Your task to perform on an android device: install app "YouTube Kids" Image 0: 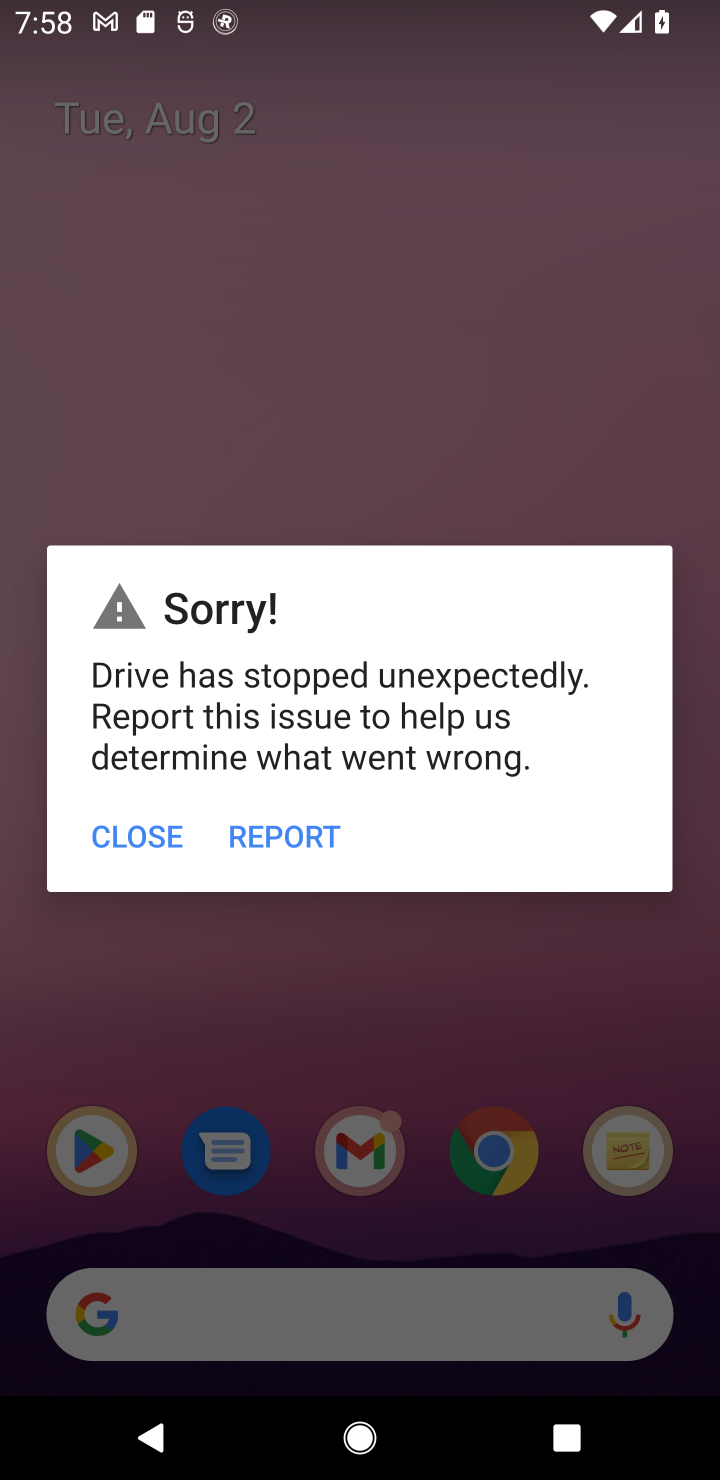
Step 0: click (152, 843)
Your task to perform on an android device: install app "YouTube Kids" Image 1: 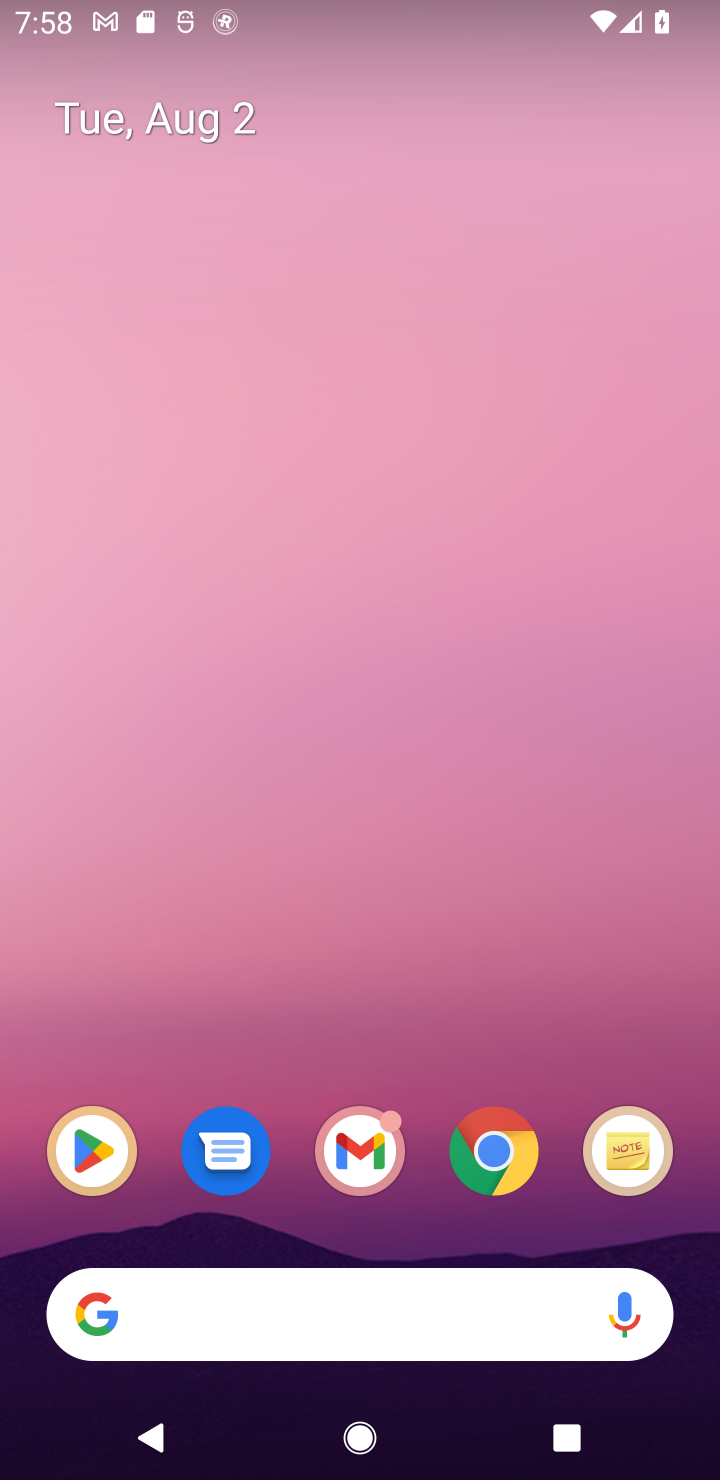
Step 1: click (84, 1146)
Your task to perform on an android device: install app "YouTube Kids" Image 2: 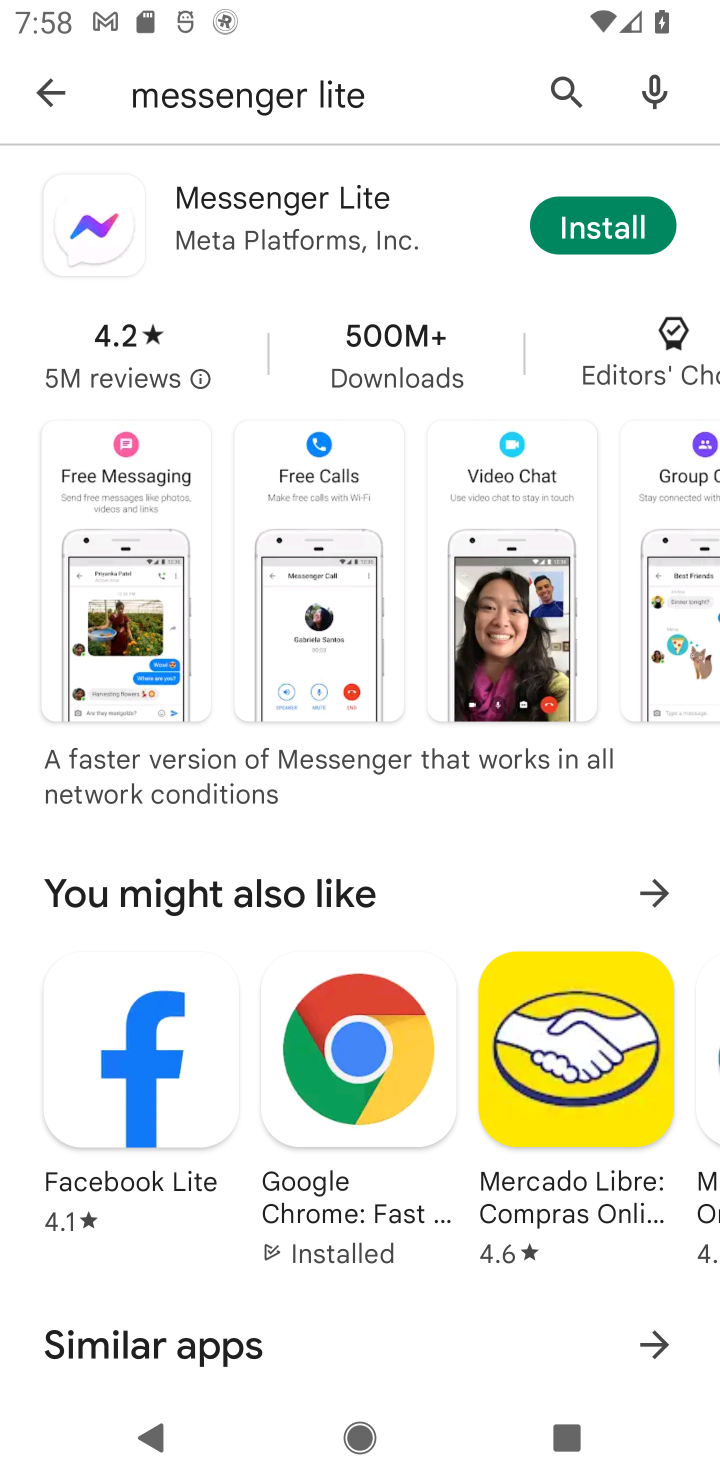
Step 2: click (566, 74)
Your task to perform on an android device: install app "YouTube Kids" Image 3: 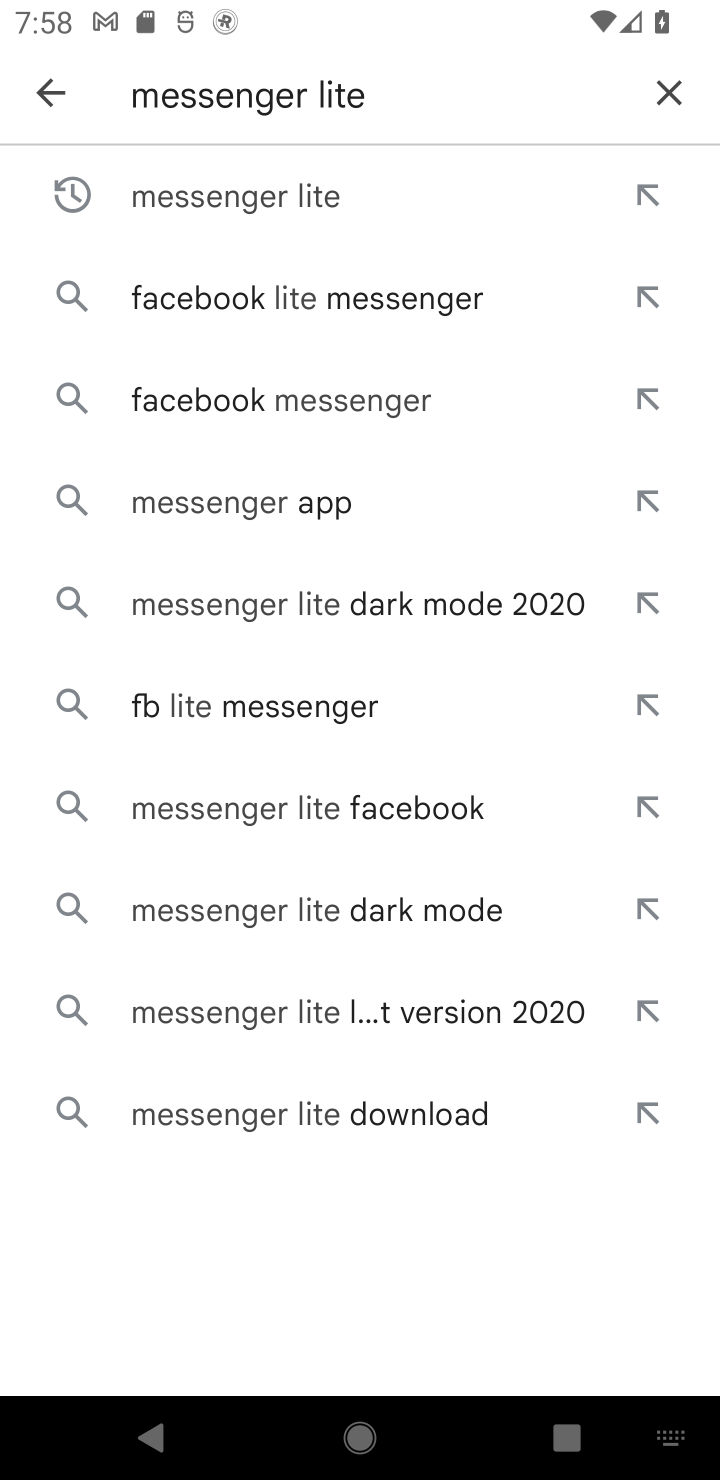
Step 3: click (654, 107)
Your task to perform on an android device: install app "YouTube Kids" Image 4: 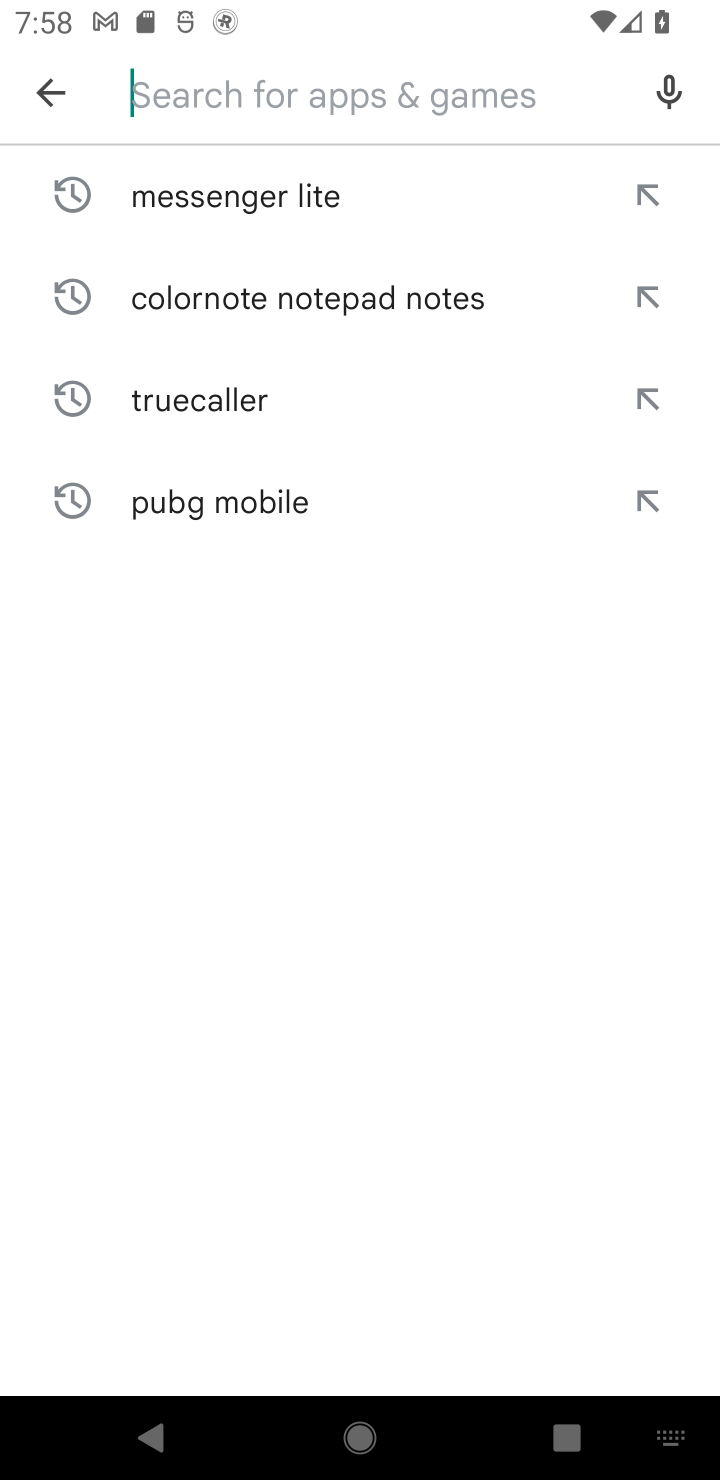
Step 4: type "YouTube Kids"
Your task to perform on an android device: install app "YouTube Kids" Image 5: 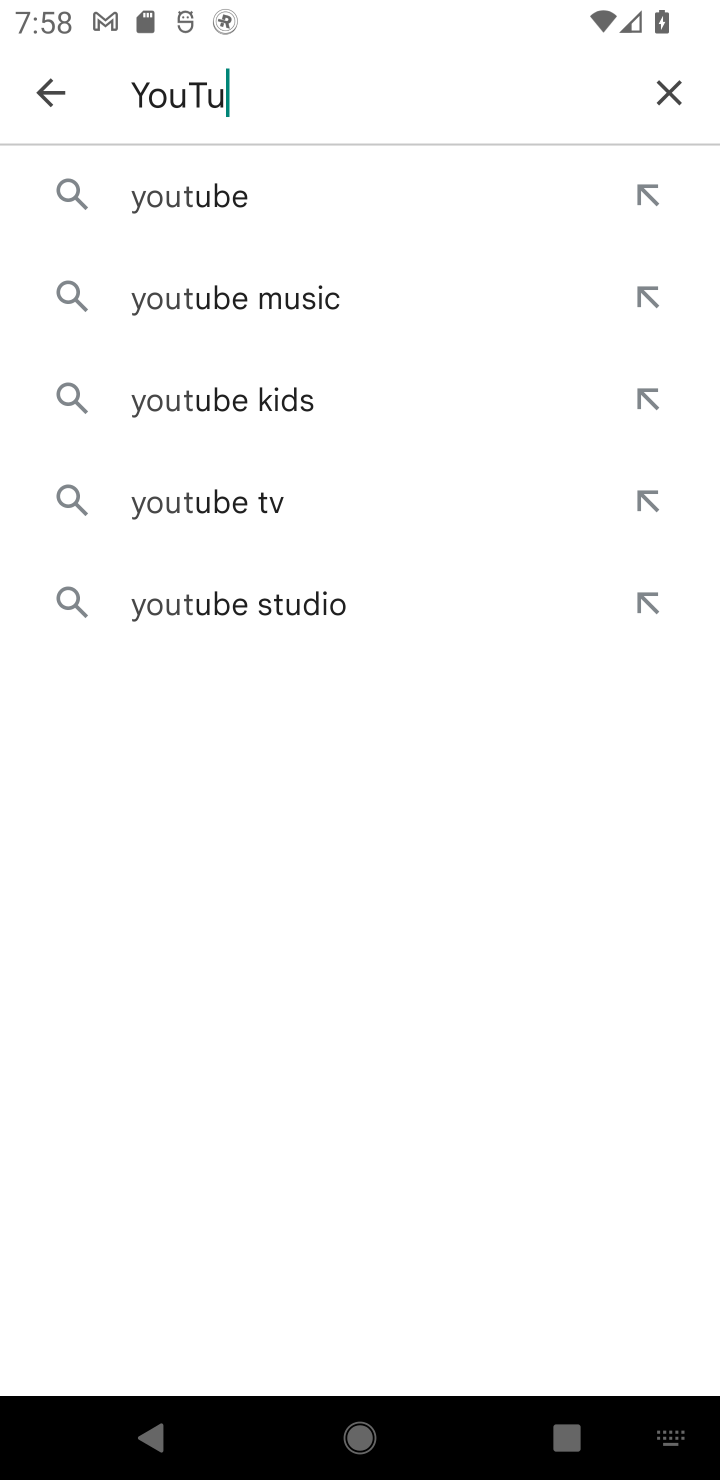
Step 5: type ""
Your task to perform on an android device: install app "YouTube Kids" Image 6: 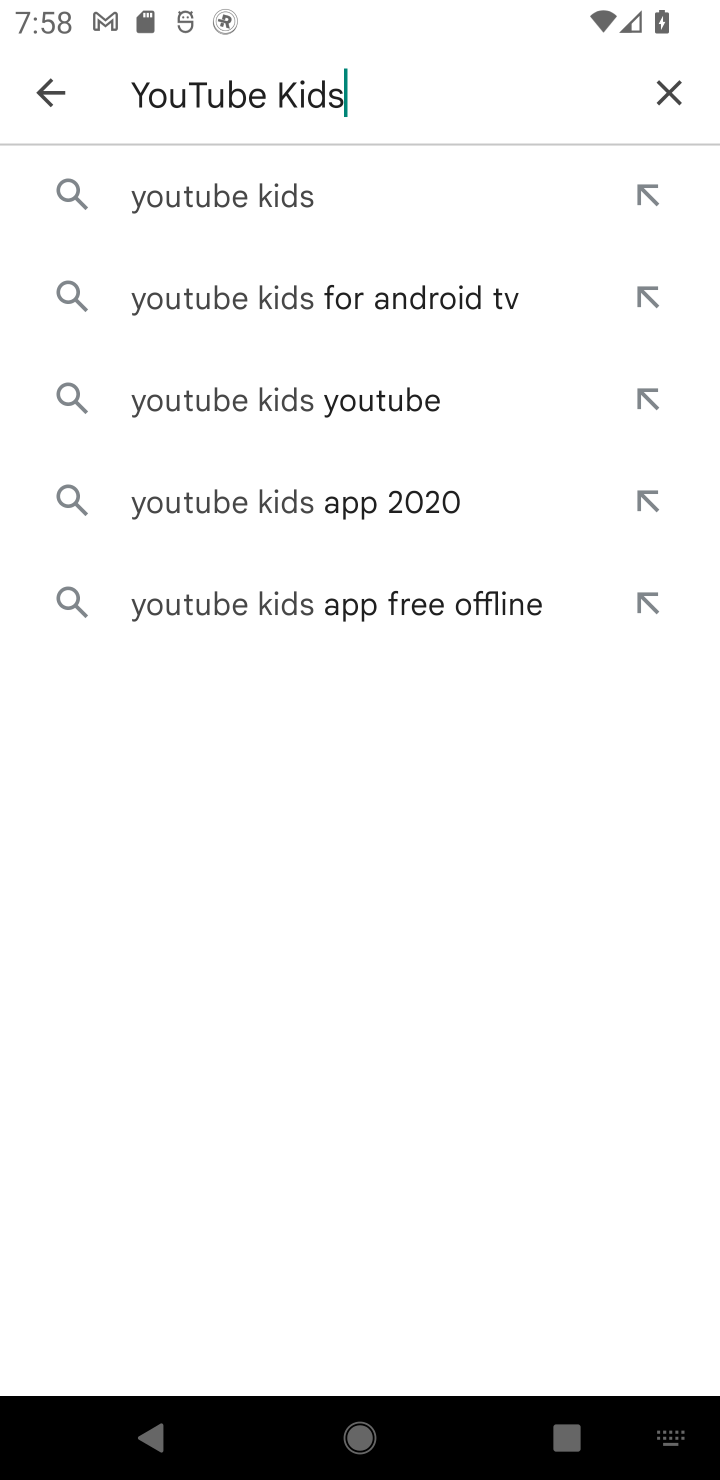
Step 6: click (244, 209)
Your task to perform on an android device: install app "YouTube Kids" Image 7: 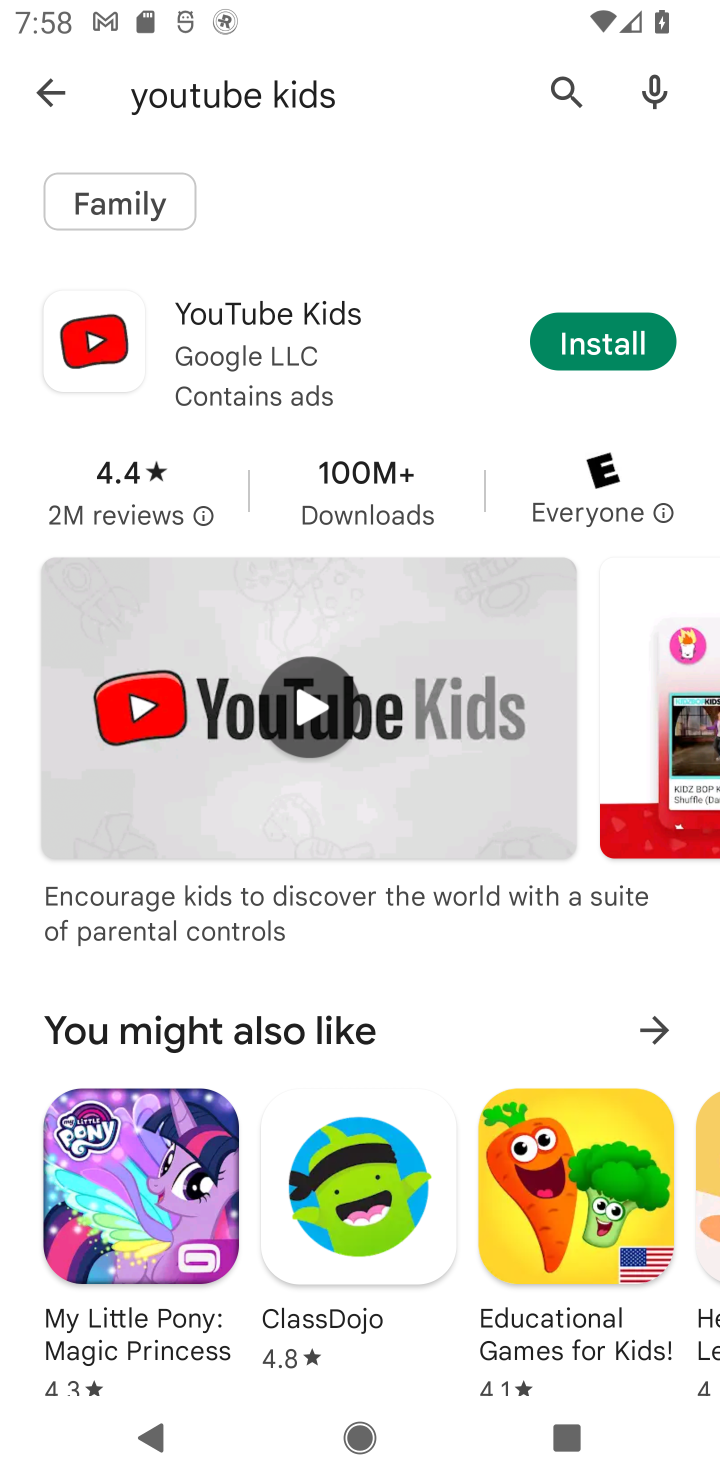
Step 7: click (583, 343)
Your task to perform on an android device: install app "YouTube Kids" Image 8: 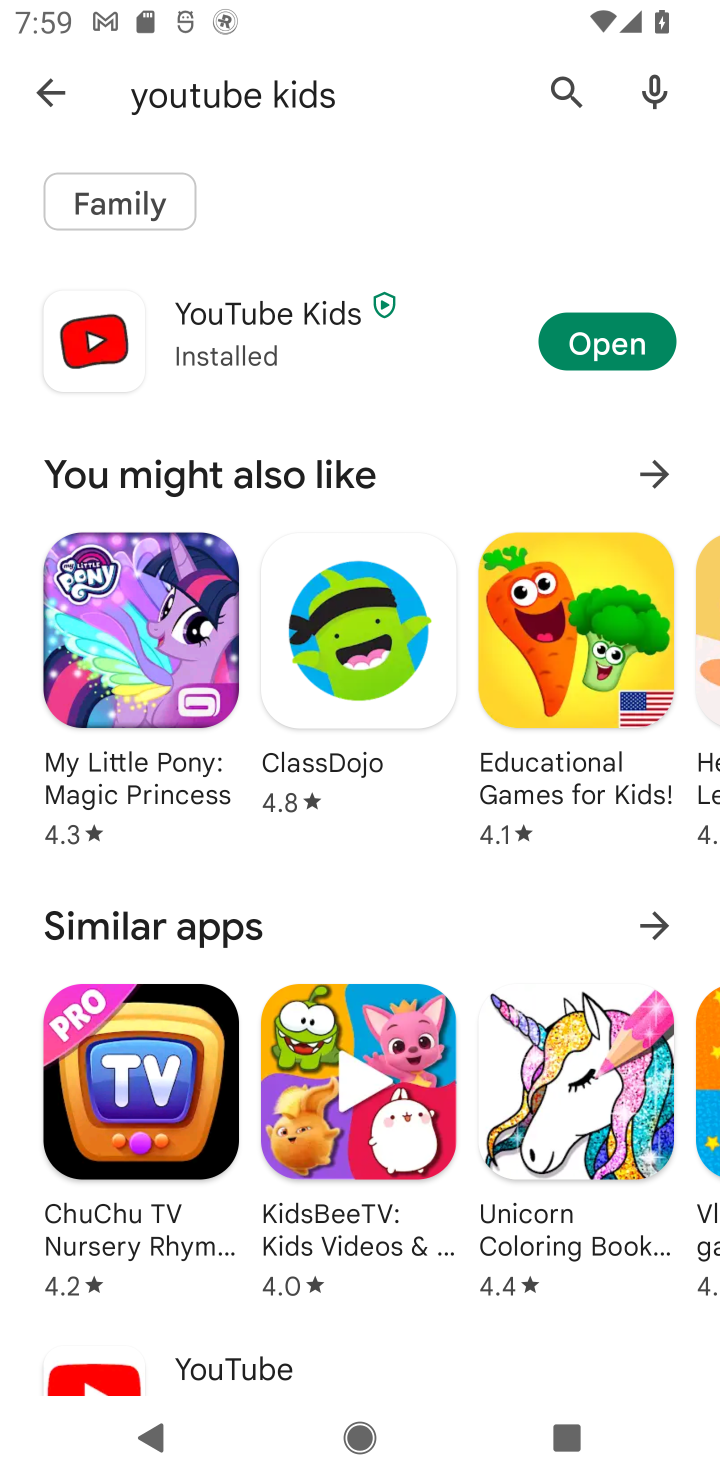
Step 8: task complete